Your task to perform on an android device: turn off data saver in the chrome app Image 0: 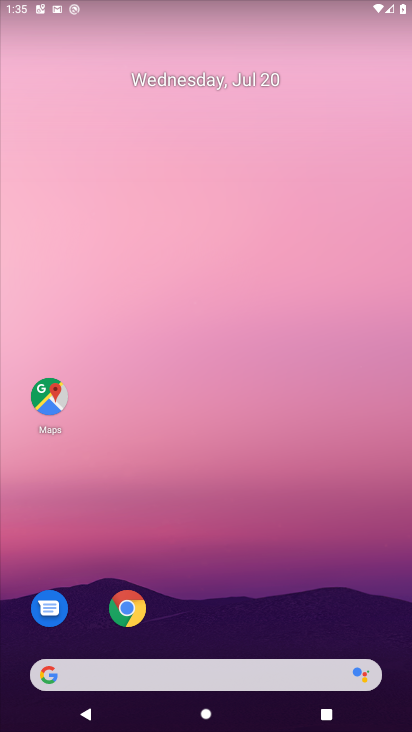
Step 0: click (130, 617)
Your task to perform on an android device: turn off data saver in the chrome app Image 1: 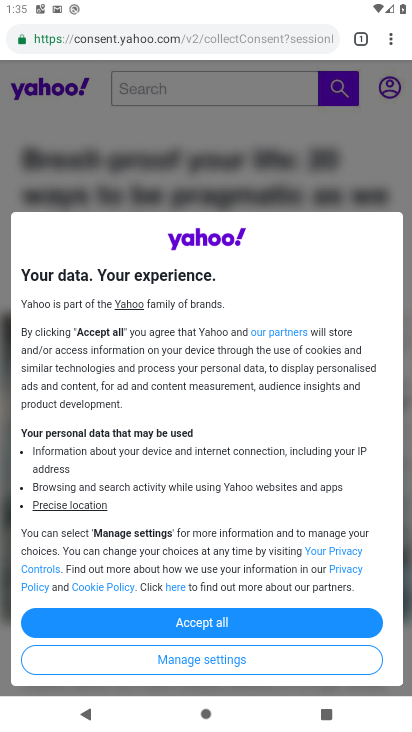
Step 1: click (391, 32)
Your task to perform on an android device: turn off data saver in the chrome app Image 2: 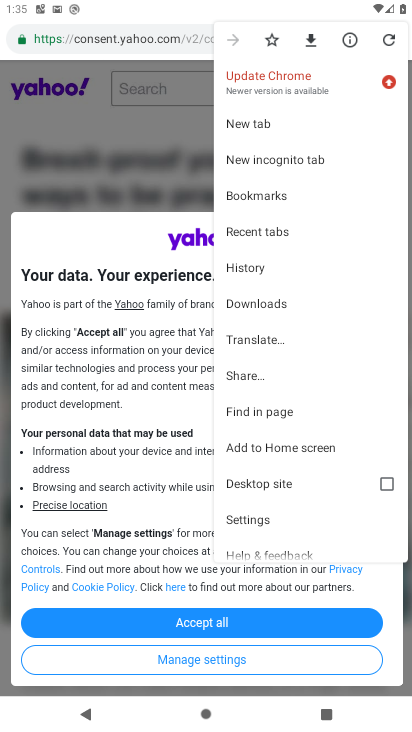
Step 2: click (254, 518)
Your task to perform on an android device: turn off data saver in the chrome app Image 3: 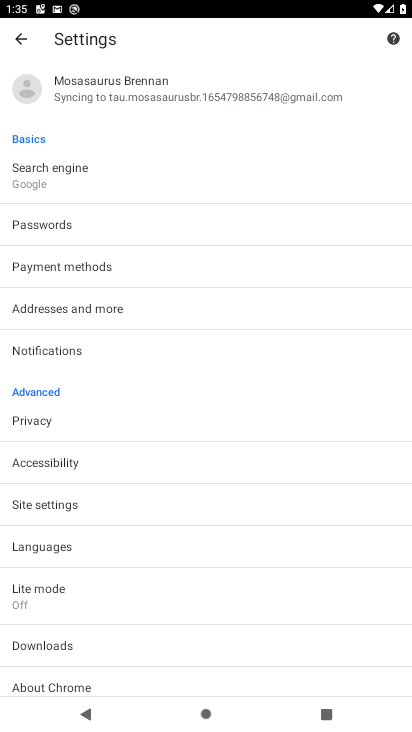
Step 3: click (59, 588)
Your task to perform on an android device: turn off data saver in the chrome app Image 4: 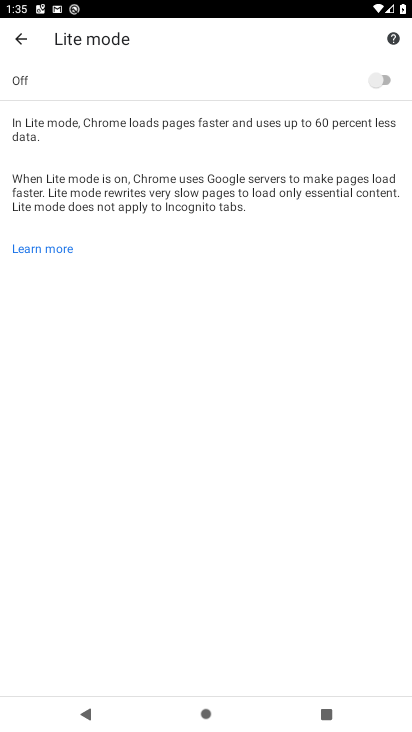
Step 4: task complete